Your task to perform on an android device: see tabs open on other devices in the chrome app Image 0: 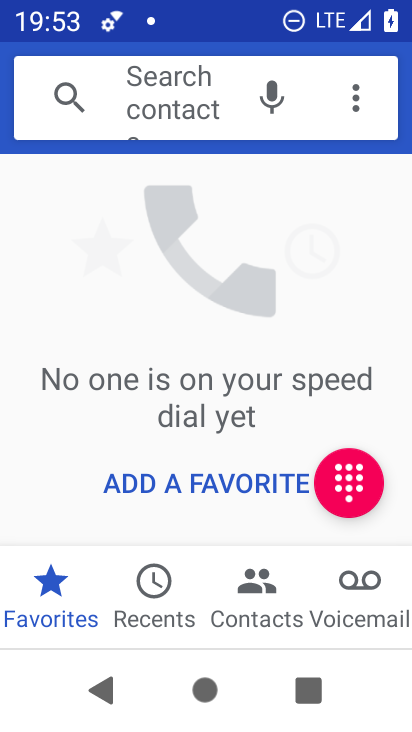
Step 0: press home button
Your task to perform on an android device: see tabs open on other devices in the chrome app Image 1: 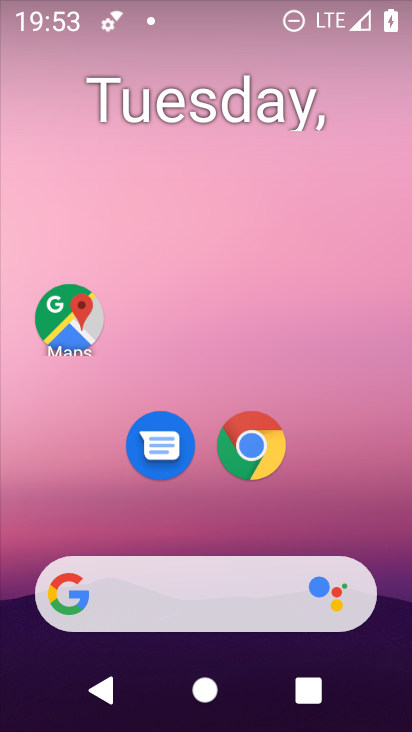
Step 1: click (254, 455)
Your task to perform on an android device: see tabs open on other devices in the chrome app Image 2: 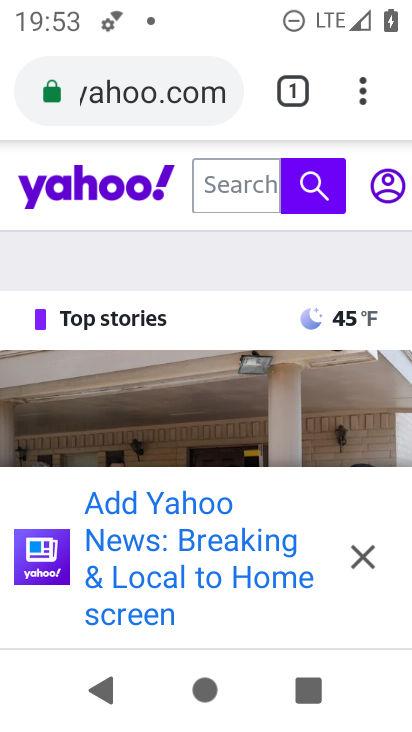
Step 2: click (297, 98)
Your task to perform on an android device: see tabs open on other devices in the chrome app Image 3: 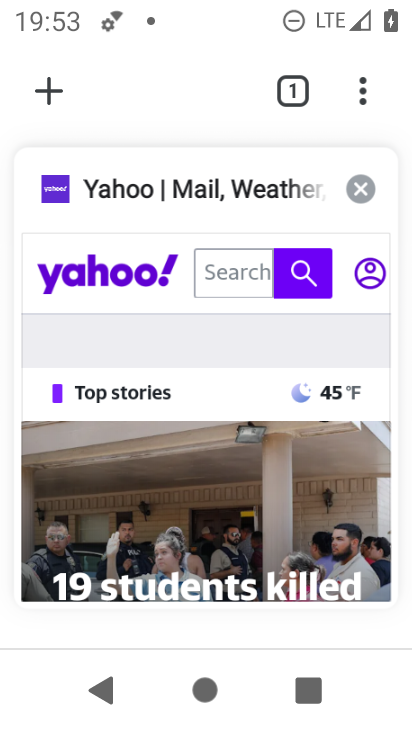
Step 3: click (41, 88)
Your task to perform on an android device: see tabs open on other devices in the chrome app Image 4: 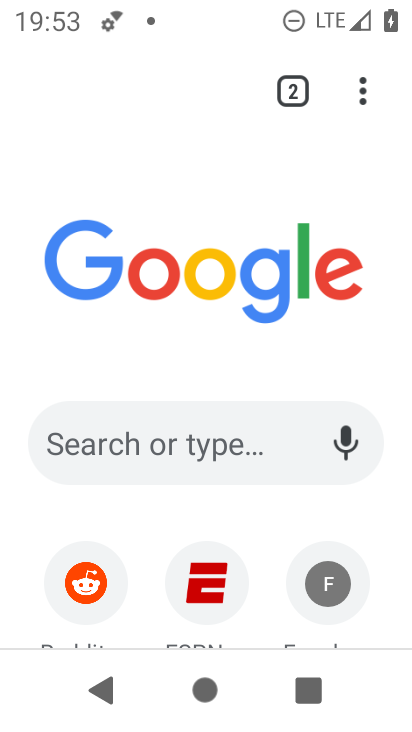
Step 4: task complete